Your task to perform on an android device: make emails show in primary in the gmail app Image 0: 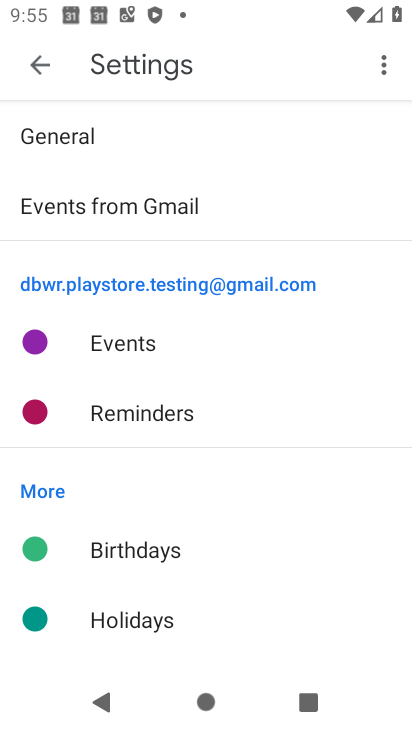
Step 0: press home button
Your task to perform on an android device: make emails show in primary in the gmail app Image 1: 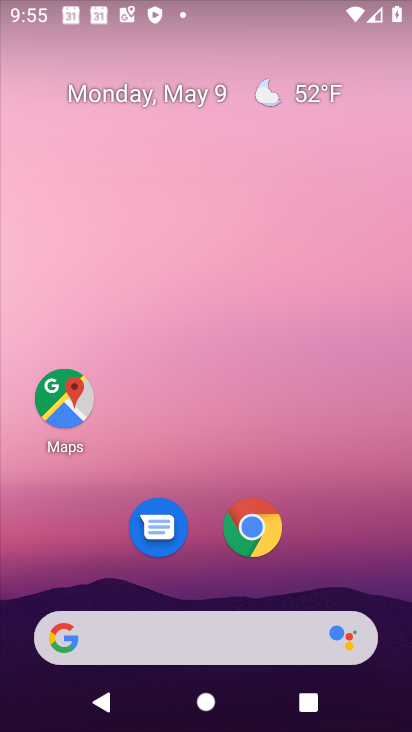
Step 1: drag from (206, 567) to (212, 98)
Your task to perform on an android device: make emails show in primary in the gmail app Image 2: 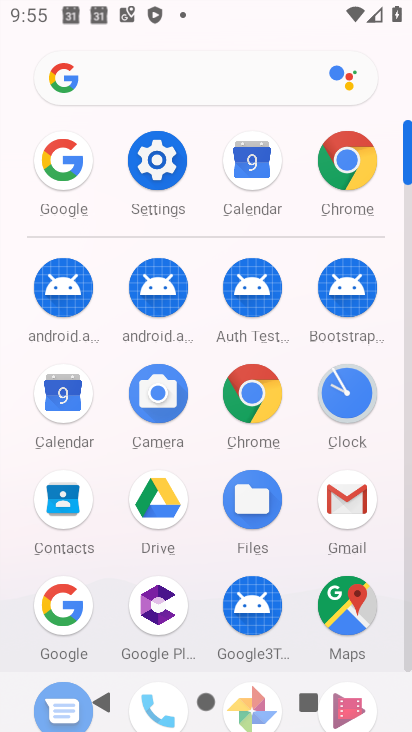
Step 2: click (343, 497)
Your task to perform on an android device: make emails show in primary in the gmail app Image 3: 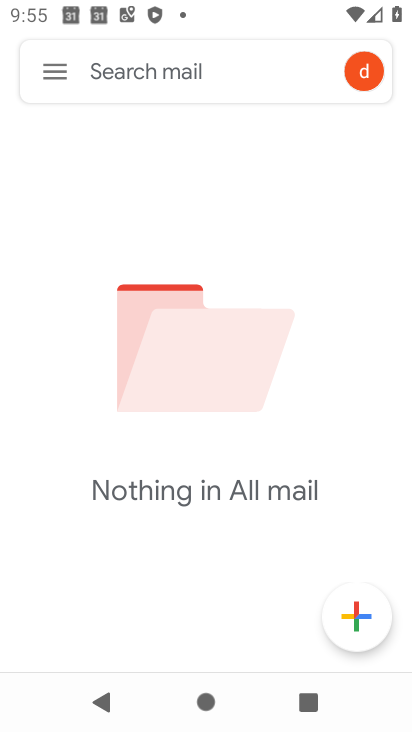
Step 3: click (49, 63)
Your task to perform on an android device: make emails show in primary in the gmail app Image 4: 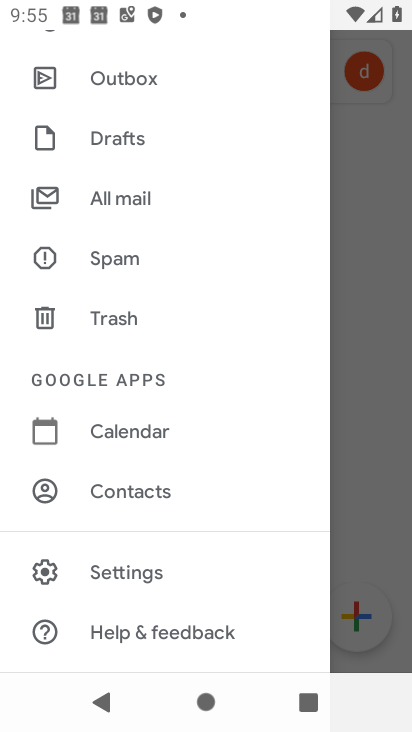
Step 4: click (142, 571)
Your task to perform on an android device: make emails show in primary in the gmail app Image 5: 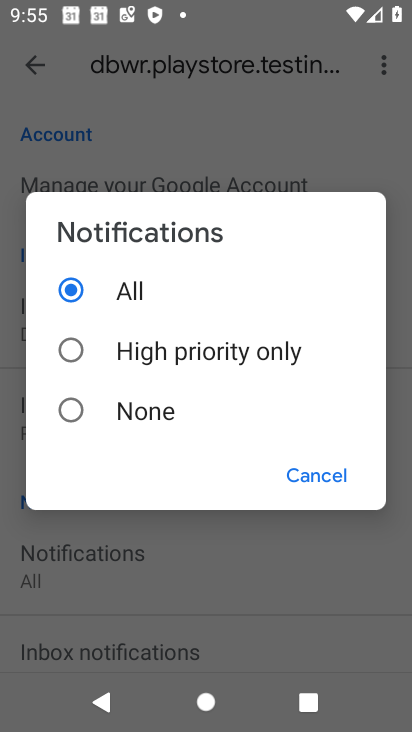
Step 5: click (334, 472)
Your task to perform on an android device: make emails show in primary in the gmail app Image 6: 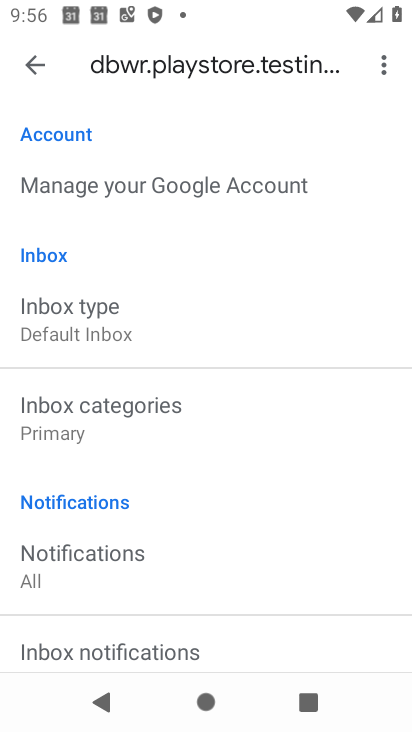
Step 6: task complete